Your task to perform on an android device: Search for a new water heater on Home Depot Image 0: 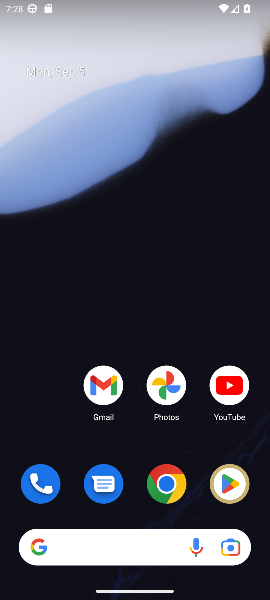
Step 0: drag from (134, 484) to (125, 105)
Your task to perform on an android device: Search for a new water heater on Home Depot Image 1: 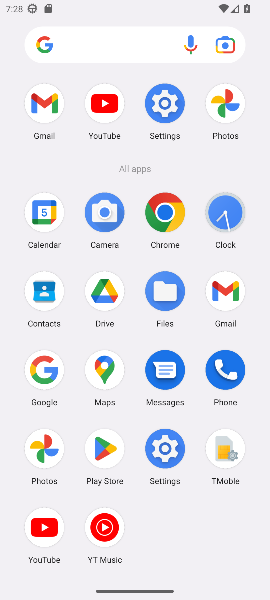
Step 1: click (163, 213)
Your task to perform on an android device: Search for a new water heater on Home Depot Image 2: 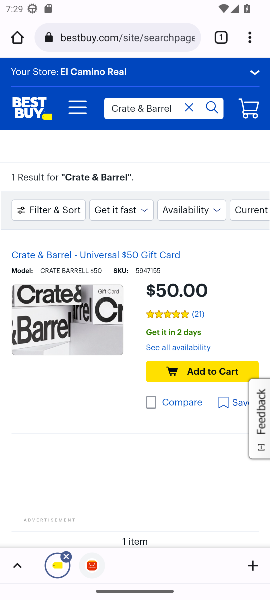
Step 2: click (105, 44)
Your task to perform on an android device: Search for a new water heater on Home Depot Image 3: 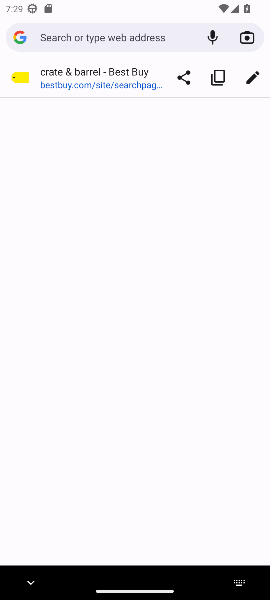
Step 3: type "Home Depot"
Your task to perform on an android device: Search for a new water heater on Home Depot Image 4: 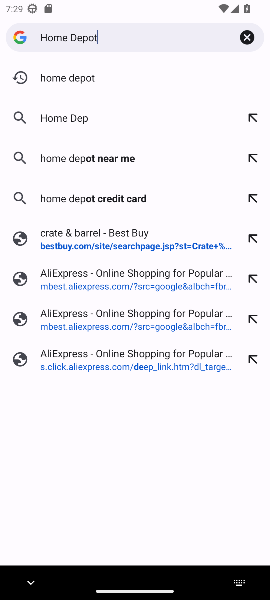
Step 4: press enter
Your task to perform on an android device: Search for a new water heater on Home Depot Image 5: 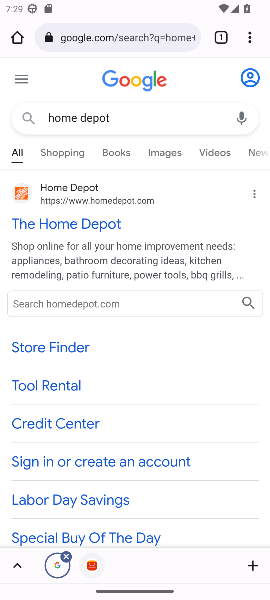
Step 5: click (13, 212)
Your task to perform on an android device: Search for a new water heater on Home Depot Image 6: 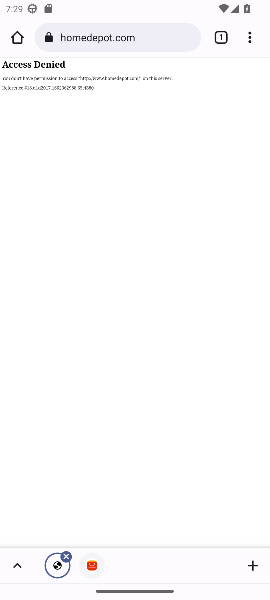
Step 6: task complete